Your task to perform on an android device: open device folders in google photos Image 0: 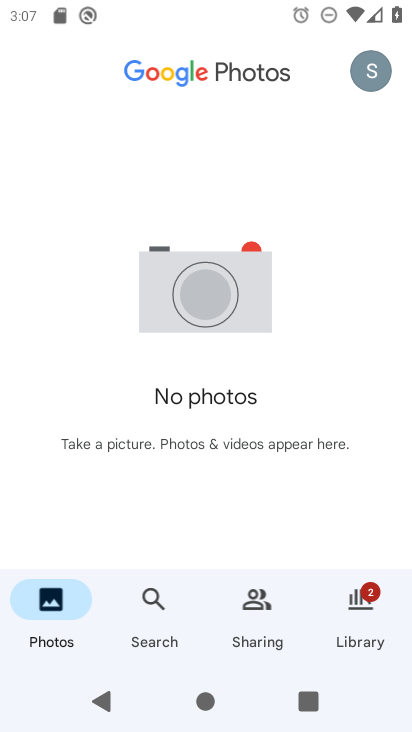
Step 0: press home button
Your task to perform on an android device: open device folders in google photos Image 1: 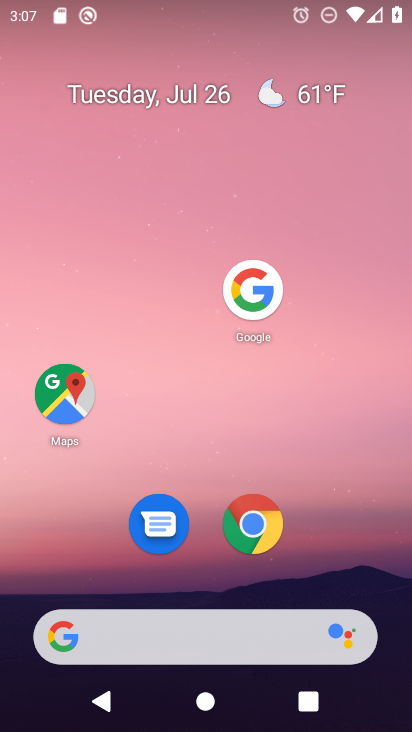
Step 1: drag from (171, 630) to (290, 113)
Your task to perform on an android device: open device folders in google photos Image 2: 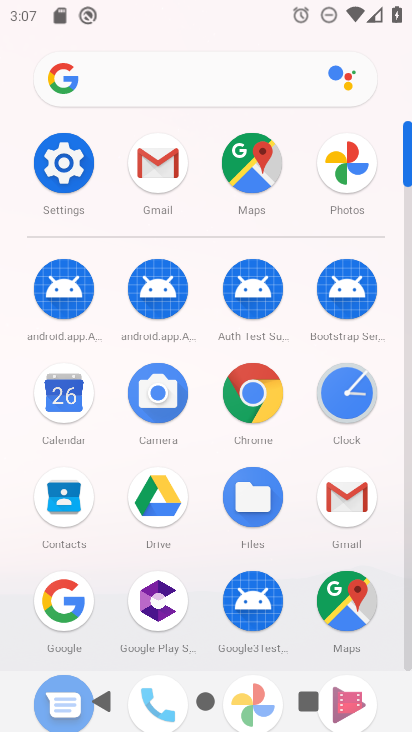
Step 2: click (357, 163)
Your task to perform on an android device: open device folders in google photos Image 3: 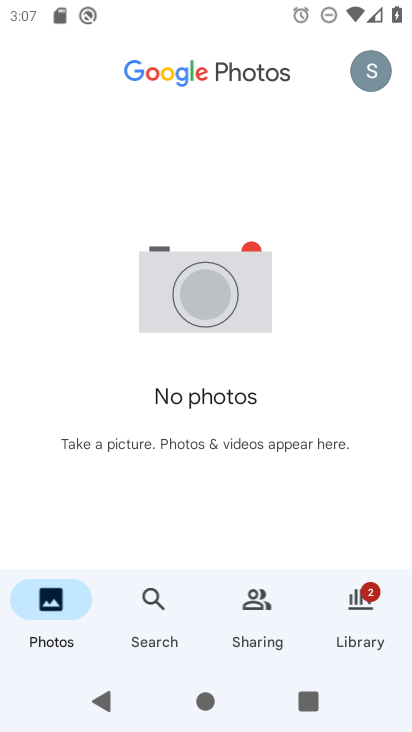
Step 3: click (347, 626)
Your task to perform on an android device: open device folders in google photos Image 4: 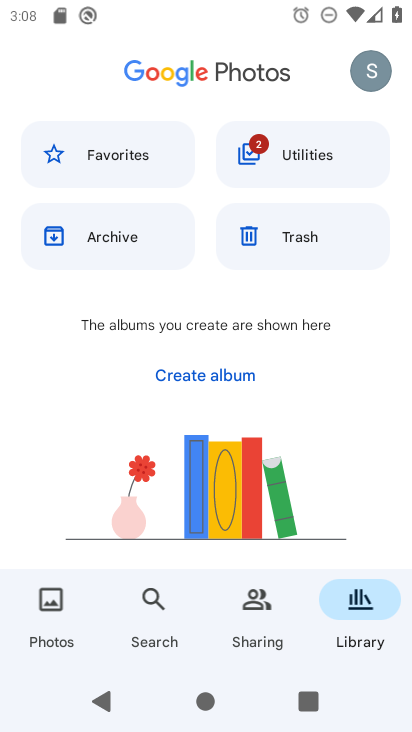
Step 4: task complete